Your task to perform on an android device: Open the map Image 0: 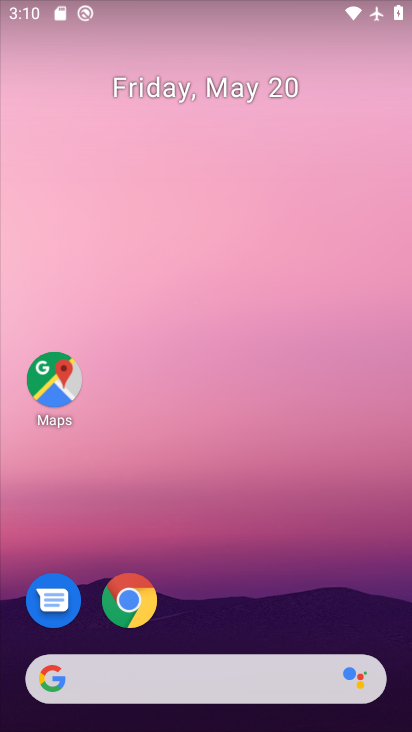
Step 0: drag from (257, 401) to (189, 69)
Your task to perform on an android device: Open the map Image 1: 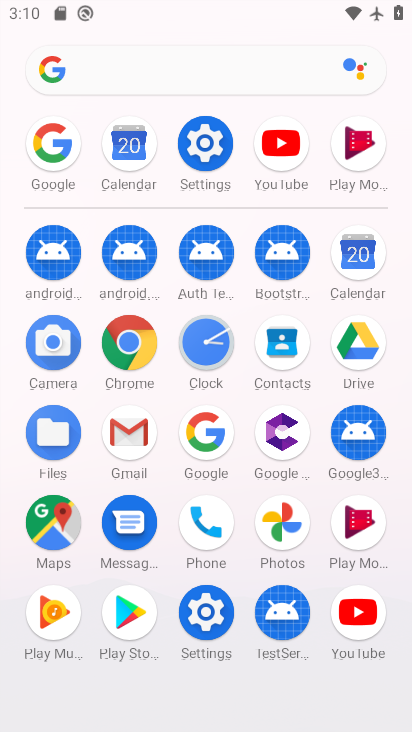
Step 1: click (49, 532)
Your task to perform on an android device: Open the map Image 2: 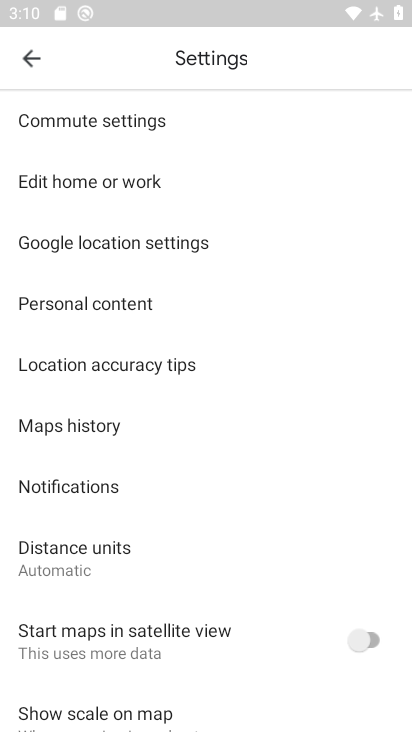
Step 2: click (24, 63)
Your task to perform on an android device: Open the map Image 3: 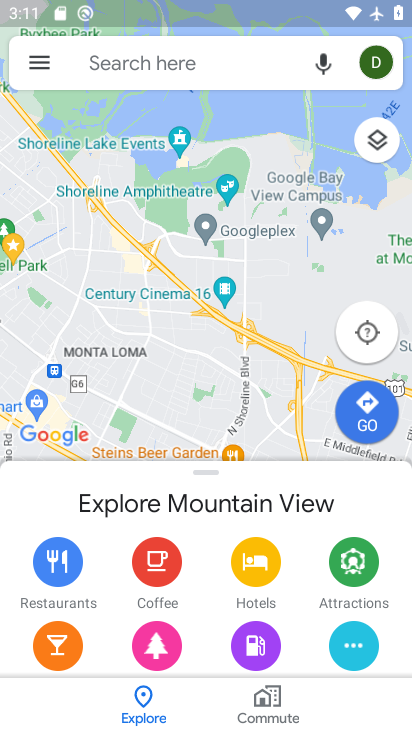
Step 3: task complete